Your task to perform on an android device: Is it going to rain today? Image 0: 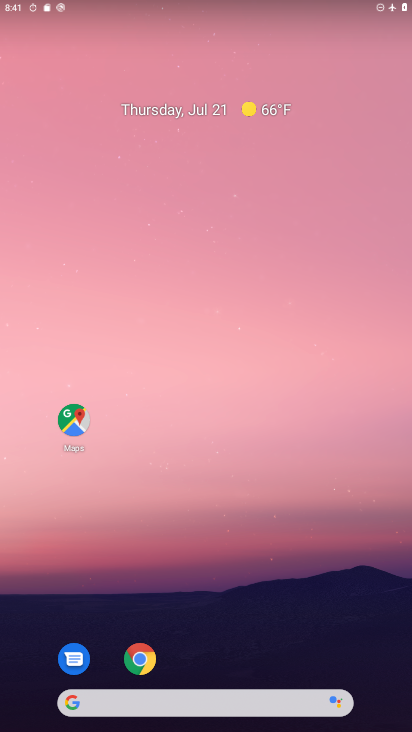
Step 0: drag from (204, 671) to (161, 61)
Your task to perform on an android device: Is it going to rain today? Image 1: 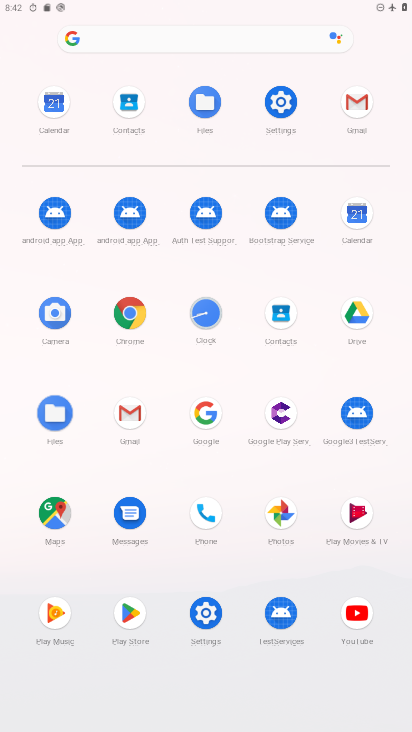
Step 1: click (134, 37)
Your task to perform on an android device: Is it going to rain today? Image 2: 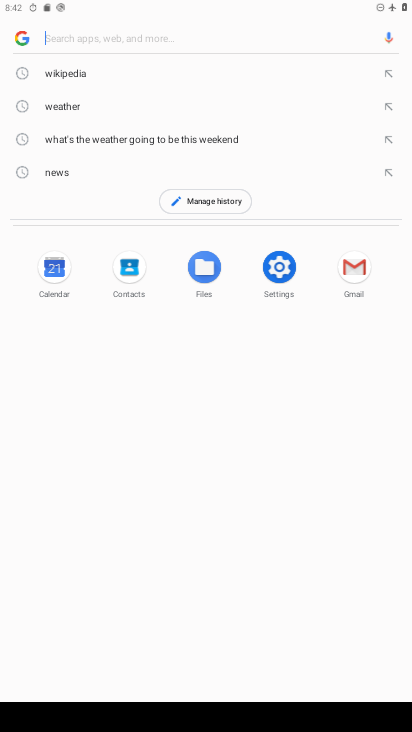
Step 2: click (75, 41)
Your task to perform on an android device: Is it going to rain today? Image 3: 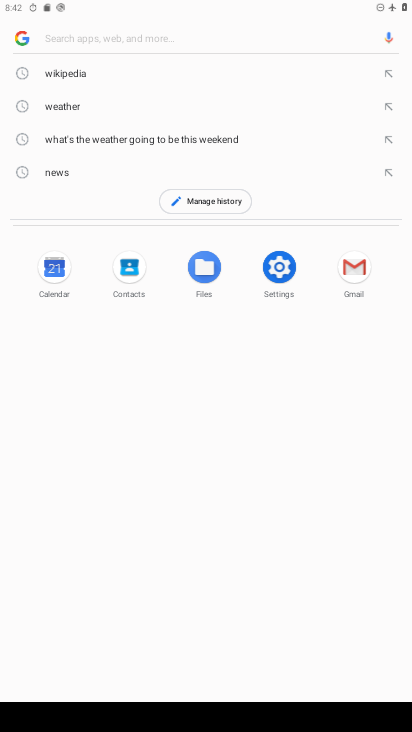
Step 3: type "Is it going to rain today?"
Your task to perform on an android device: Is it going to rain today? Image 4: 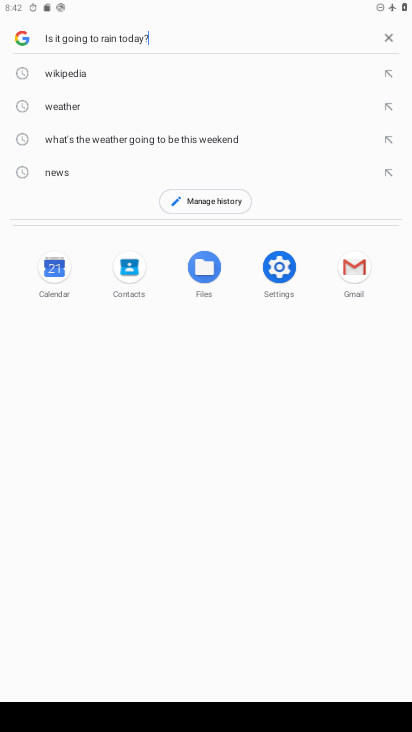
Step 4: type ""
Your task to perform on an android device: Is it going to rain today? Image 5: 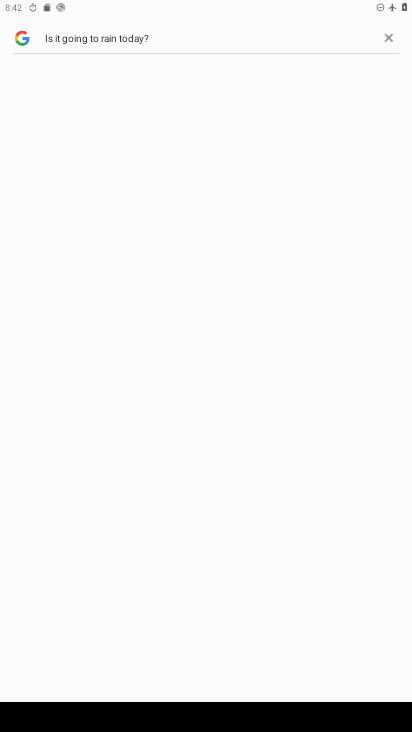
Step 5: click (158, 101)
Your task to perform on an android device: Is it going to rain today? Image 6: 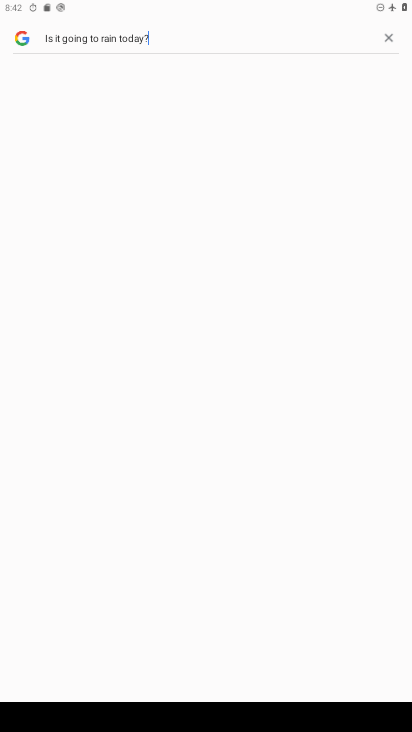
Step 6: click (182, 96)
Your task to perform on an android device: Is it going to rain today? Image 7: 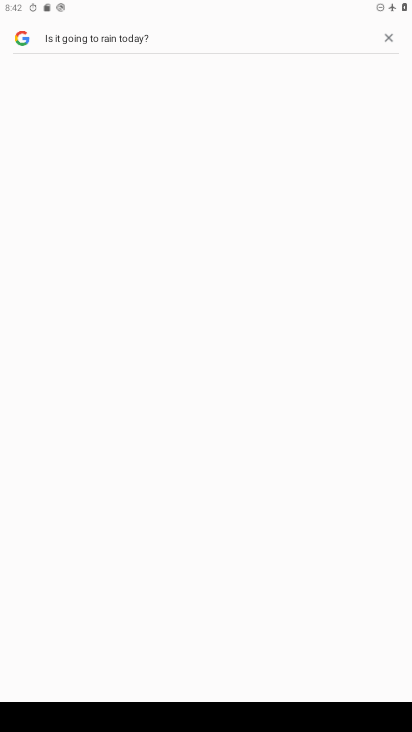
Step 7: click (201, 116)
Your task to perform on an android device: Is it going to rain today? Image 8: 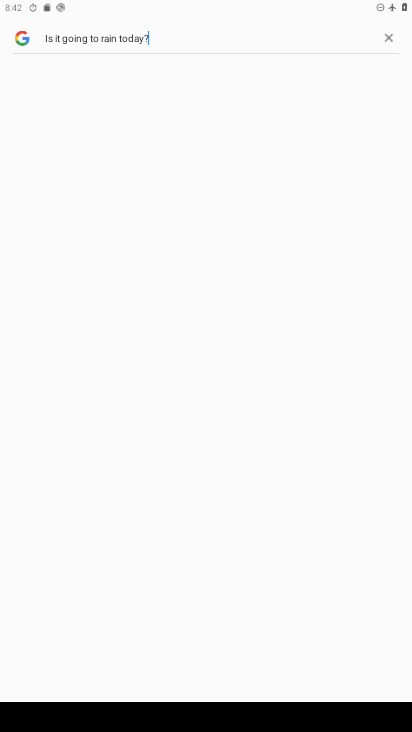
Step 8: click (182, 222)
Your task to perform on an android device: Is it going to rain today? Image 9: 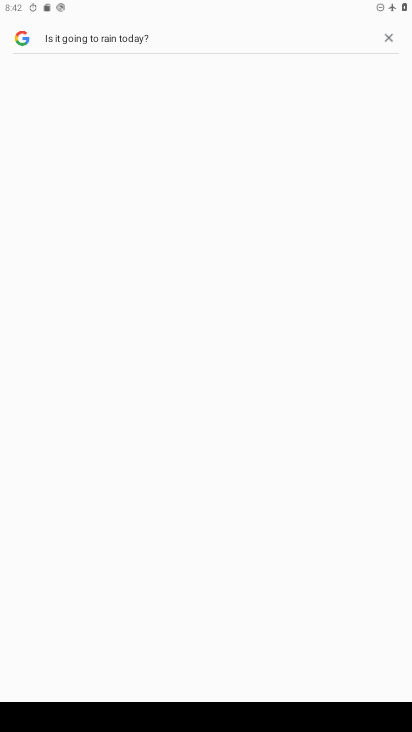
Step 9: task complete